Your task to perform on an android device: empty trash in google photos Image 0: 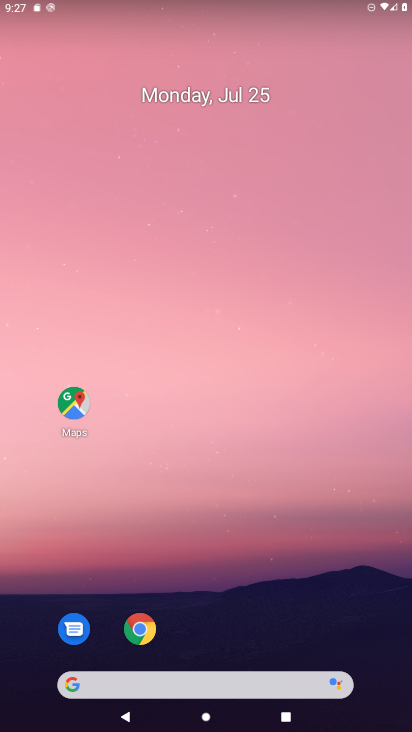
Step 0: drag from (267, 669) to (232, 0)
Your task to perform on an android device: empty trash in google photos Image 1: 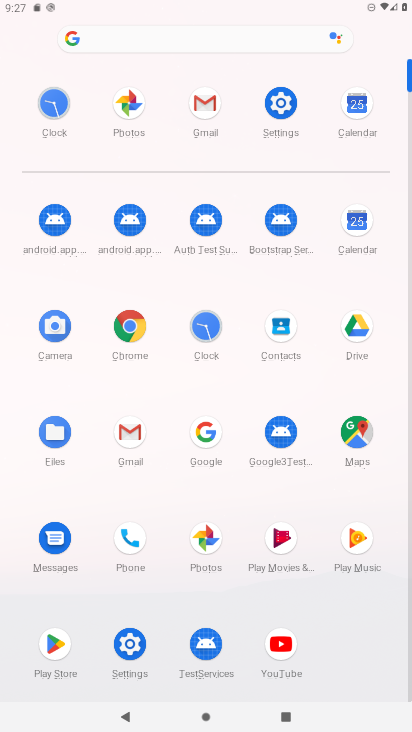
Step 1: click (208, 545)
Your task to perform on an android device: empty trash in google photos Image 2: 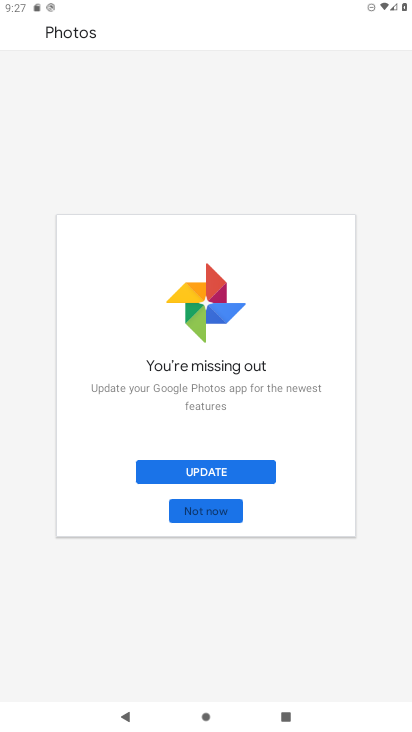
Step 2: click (211, 515)
Your task to perform on an android device: empty trash in google photos Image 3: 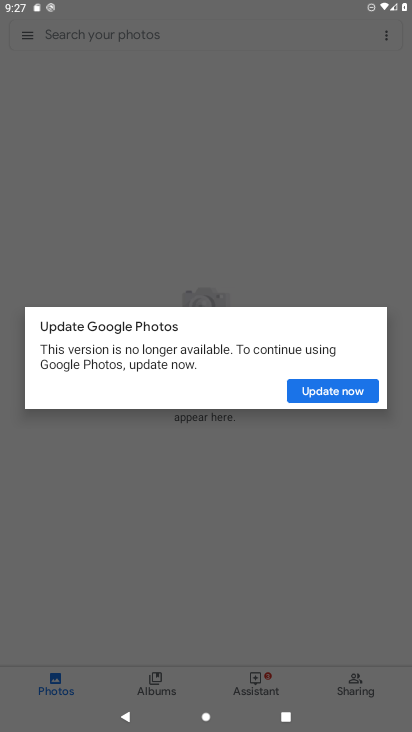
Step 3: click (335, 364)
Your task to perform on an android device: empty trash in google photos Image 4: 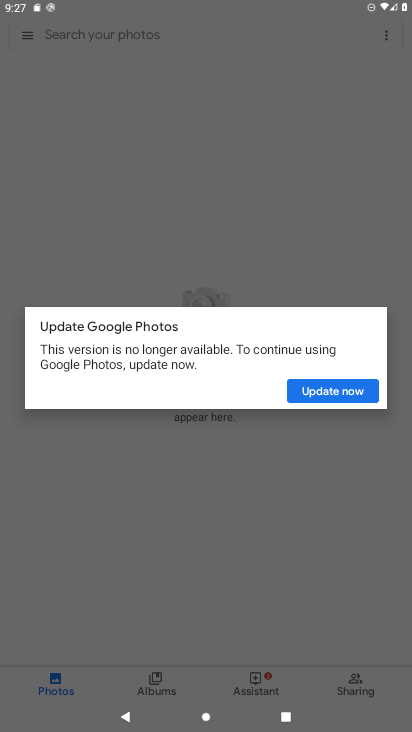
Step 4: click (336, 387)
Your task to perform on an android device: empty trash in google photos Image 5: 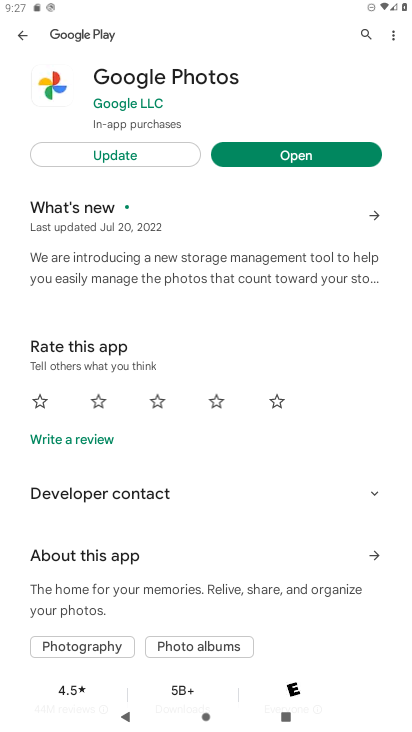
Step 5: click (258, 155)
Your task to perform on an android device: empty trash in google photos Image 6: 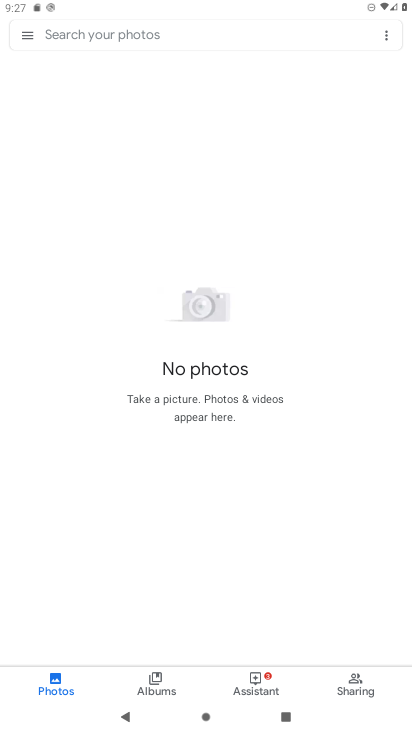
Step 6: click (29, 40)
Your task to perform on an android device: empty trash in google photos Image 7: 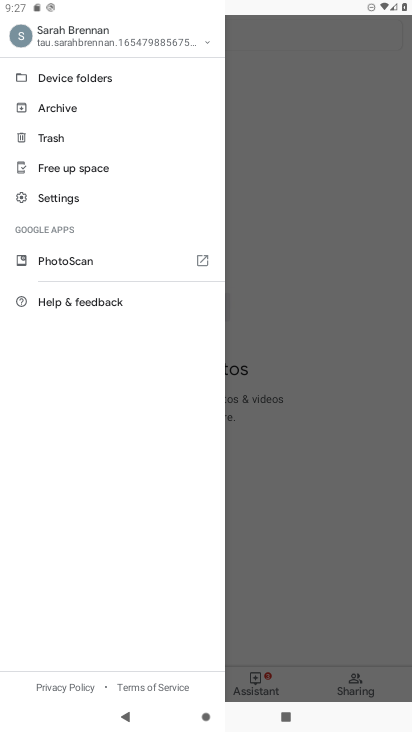
Step 7: click (52, 145)
Your task to perform on an android device: empty trash in google photos Image 8: 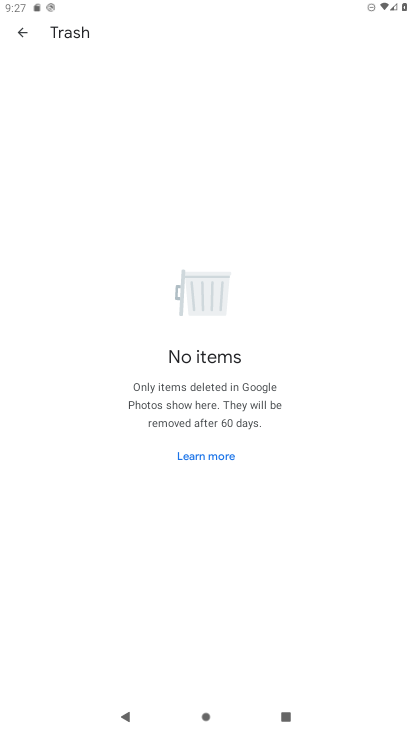
Step 8: task complete